Your task to perform on an android device: toggle airplane mode Image 0: 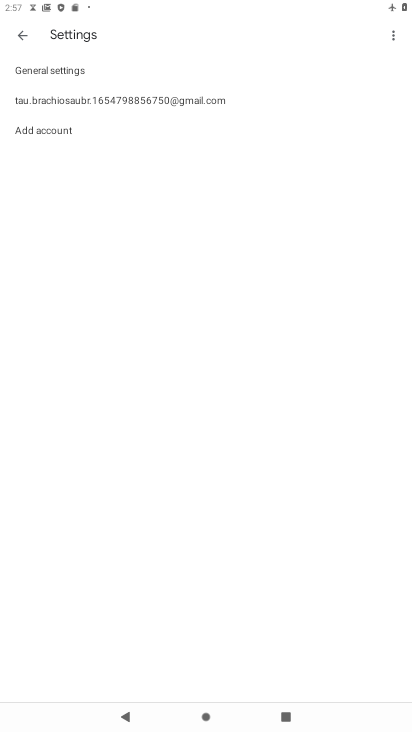
Step 0: press home button
Your task to perform on an android device: toggle airplane mode Image 1: 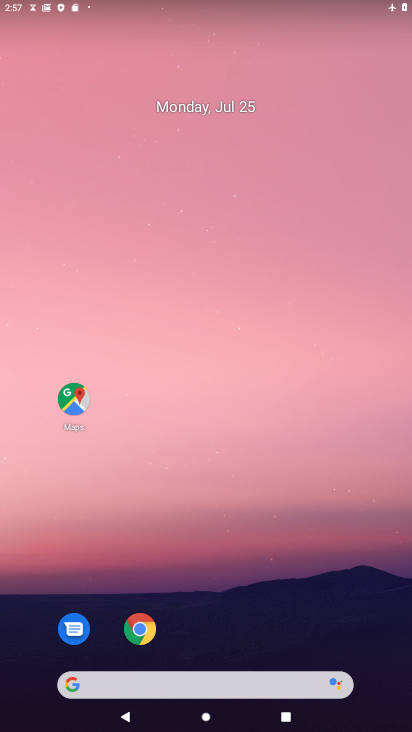
Step 1: drag from (294, 645) to (174, 153)
Your task to perform on an android device: toggle airplane mode Image 2: 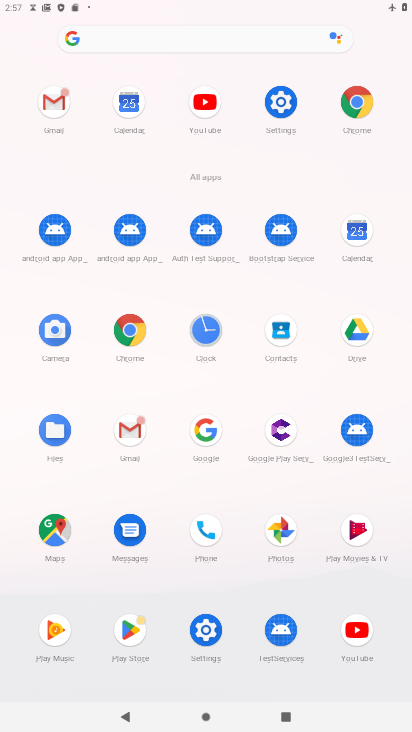
Step 2: click (274, 98)
Your task to perform on an android device: toggle airplane mode Image 3: 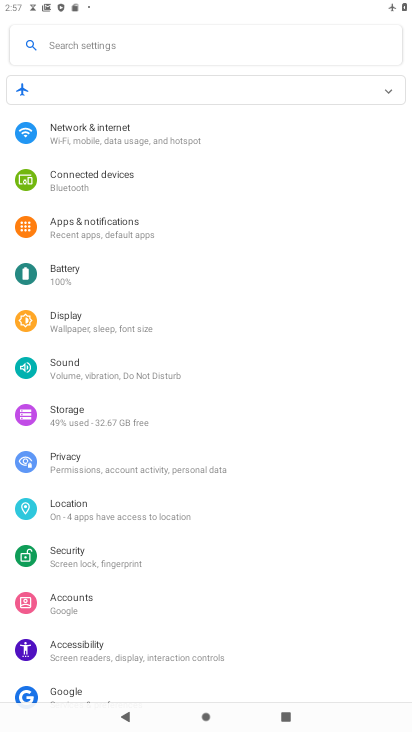
Step 3: click (243, 138)
Your task to perform on an android device: toggle airplane mode Image 4: 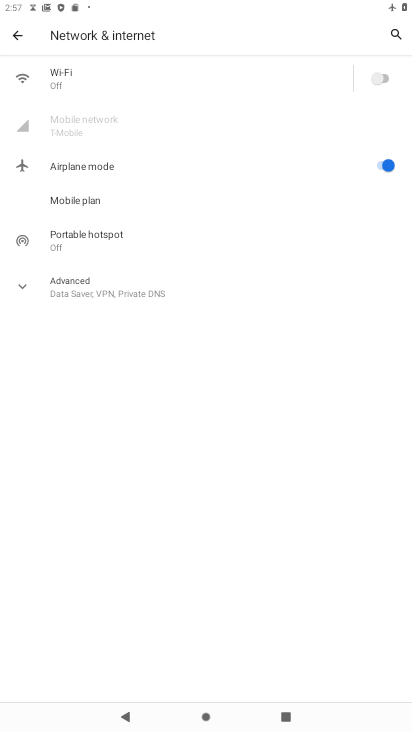
Step 4: click (387, 161)
Your task to perform on an android device: toggle airplane mode Image 5: 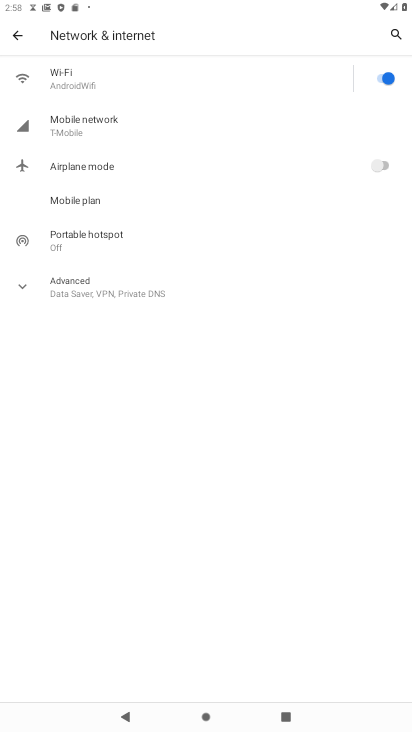
Step 5: task complete